Your task to perform on an android device: When is my next meeting? Image 0: 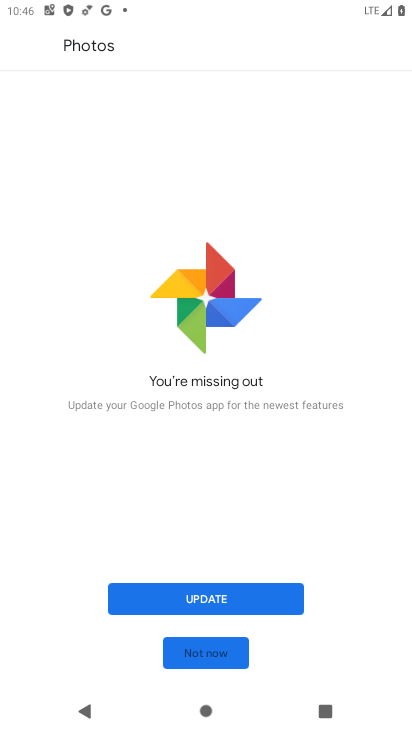
Step 0: press home button
Your task to perform on an android device: When is my next meeting? Image 1: 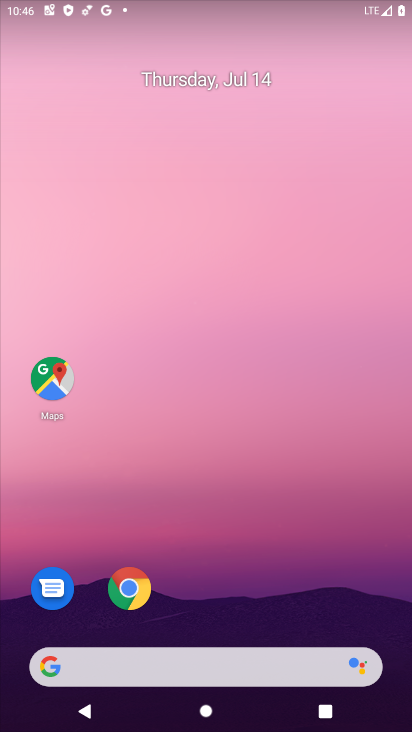
Step 1: drag from (185, 612) to (307, 86)
Your task to perform on an android device: When is my next meeting? Image 2: 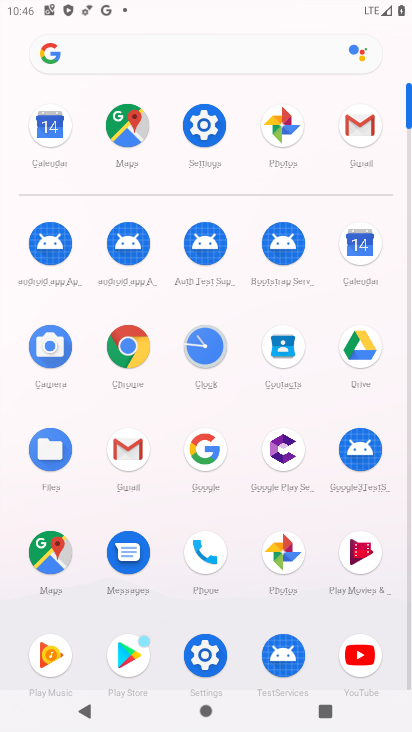
Step 2: click (46, 135)
Your task to perform on an android device: When is my next meeting? Image 3: 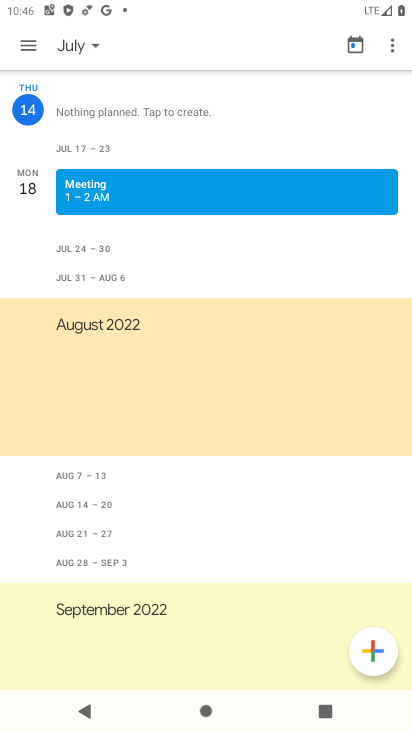
Step 3: drag from (252, 326) to (337, 67)
Your task to perform on an android device: When is my next meeting? Image 4: 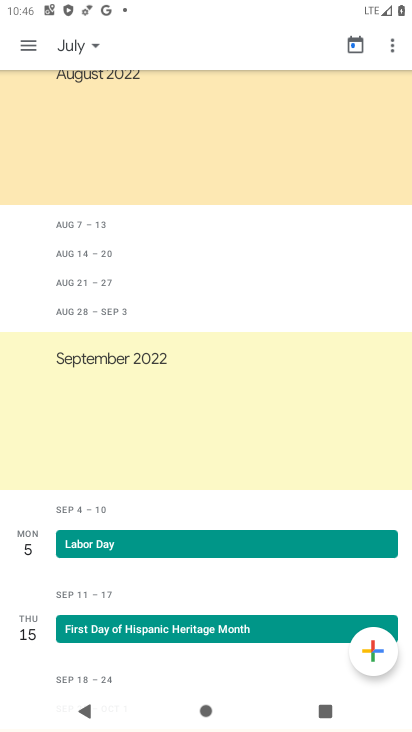
Step 4: drag from (278, 280) to (188, 627)
Your task to perform on an android device: When is my next meeting? Image 5: 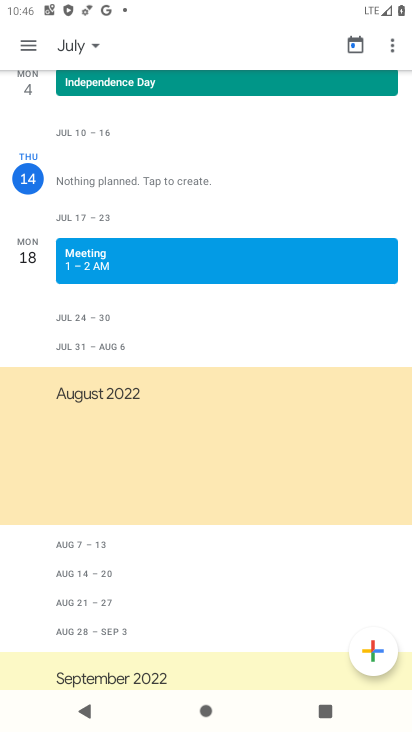
Step 5: click (83, 257)
Your task to perform on an android device: When is my next meeting? Image 6: 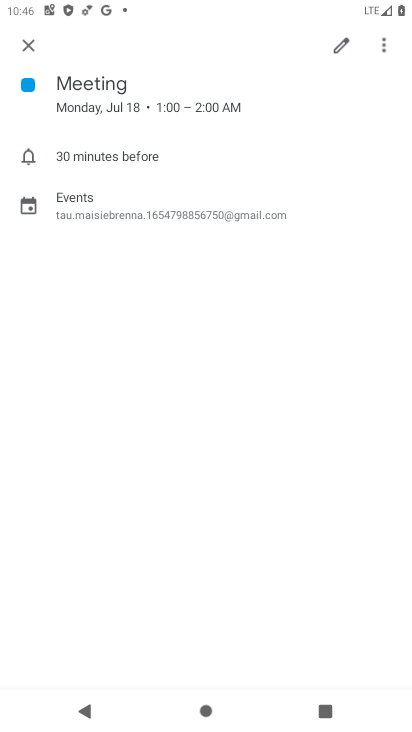
Step 6: task complete